Your task to perform on an android device: change alarm snooze length Image 0: 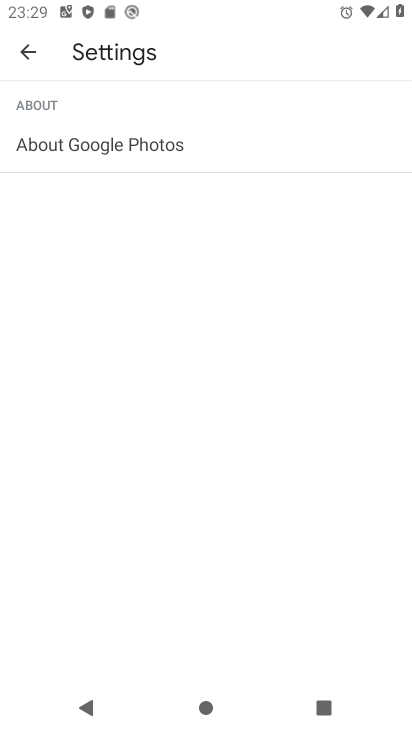
Step 0: drag from (264, 537) to (216, 262)
Your task to perform on an android device: change alarm snooze length Image 1: 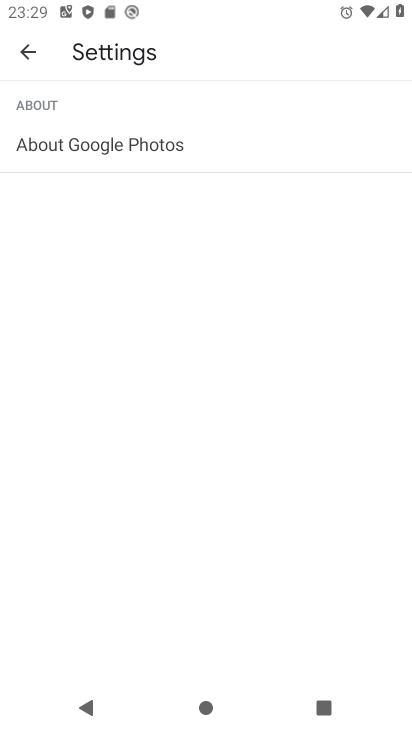
Step 1: press home button
Your task to perform on an android device: change alarm snooze length Image 2: 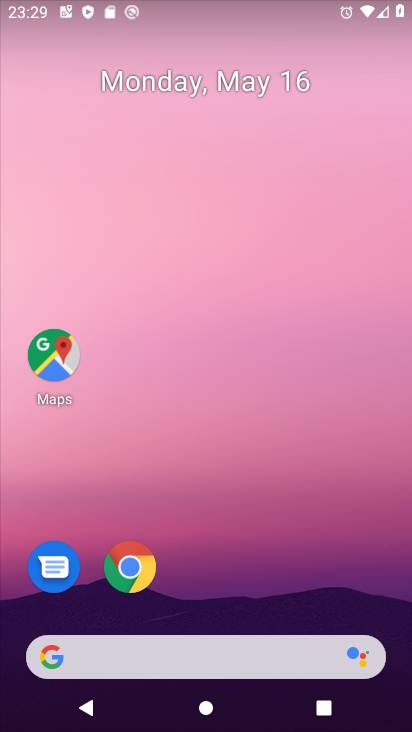
Step 2: drag from (254, 569) to (191, 214)
Your task to perform on an android device: change alarm snooze length Image 3: 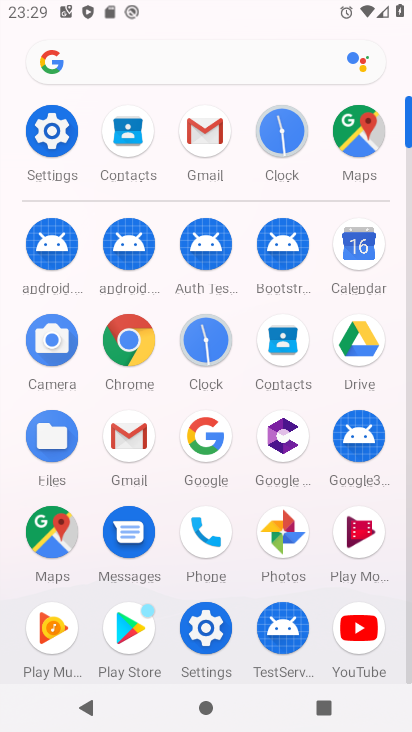
Step 3: click (204, 339)
Your task to perform on an android device: change alarm snooze length Image 4: 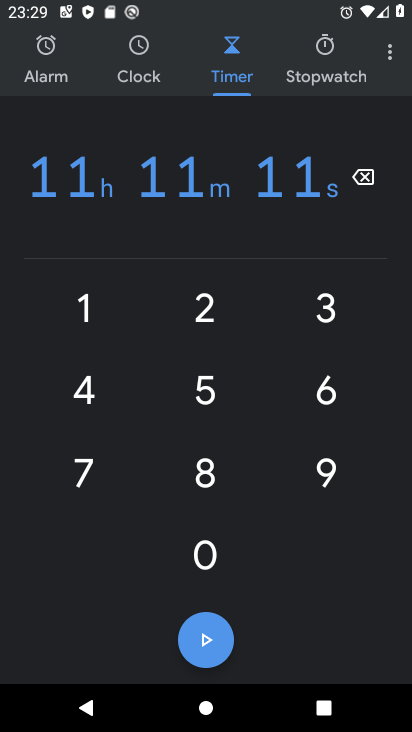
Step 4: click (392, 54)
Your task to perform on an android device: change alarm snooze length Image 5: 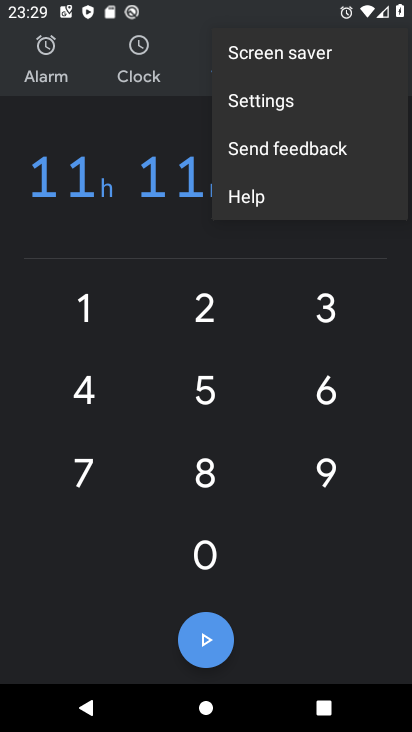
Step 5: click (279, 96)
Your task to perform on an android device: change alarm snooze length Image 6: 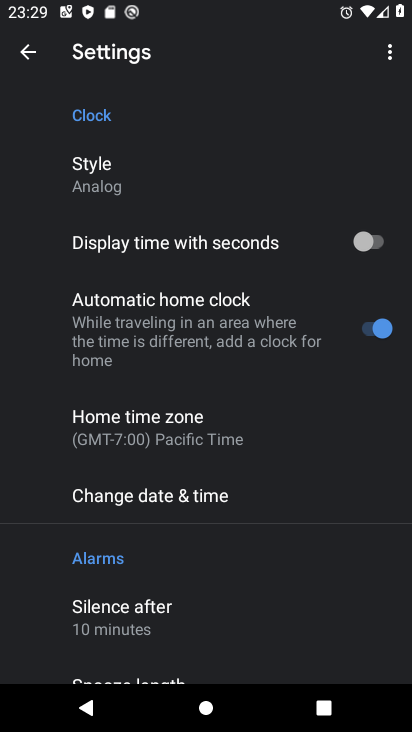
Step 6: drag from (285, 497) to (247, 335)
Your task to perform on an android device: change alarm snooze length Image 7: 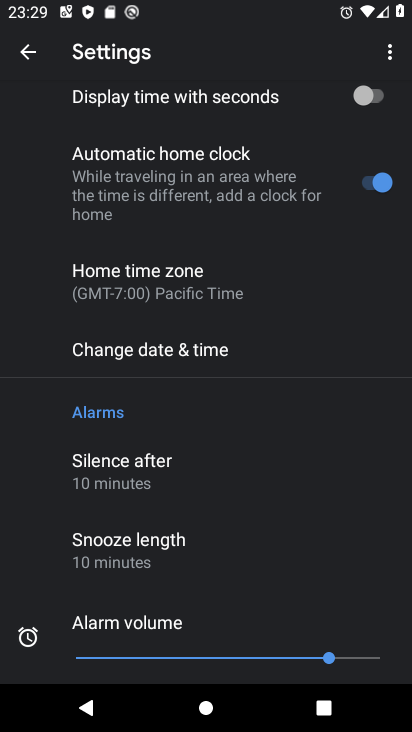
Step 7: drag from (270, 490) to (218, 320)
Your task to perform on an android device: change alarm snooze length Image 8: 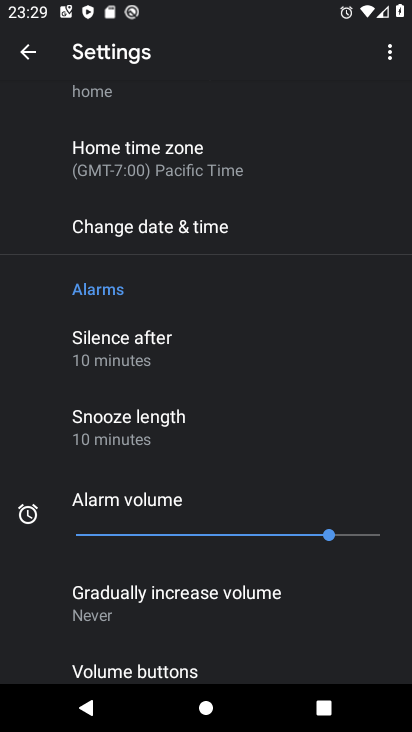
Step 8: click (144, 424)
Your task to perform on an android device: change alarm snooze length Image 9: 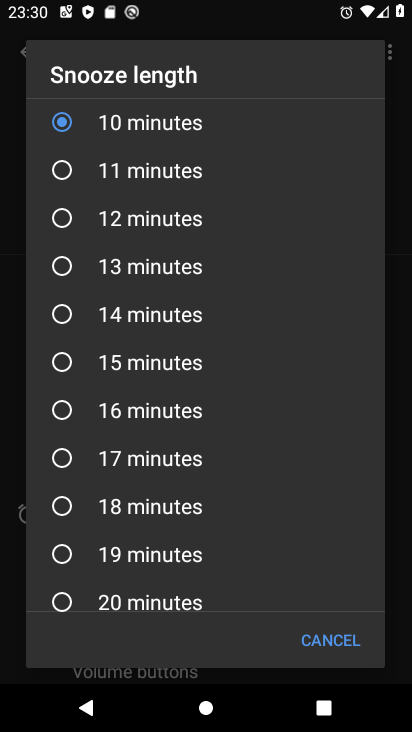
Step 9: click (57, 181)
Your task to perform on an android device: change alarm snooze length Image 10: 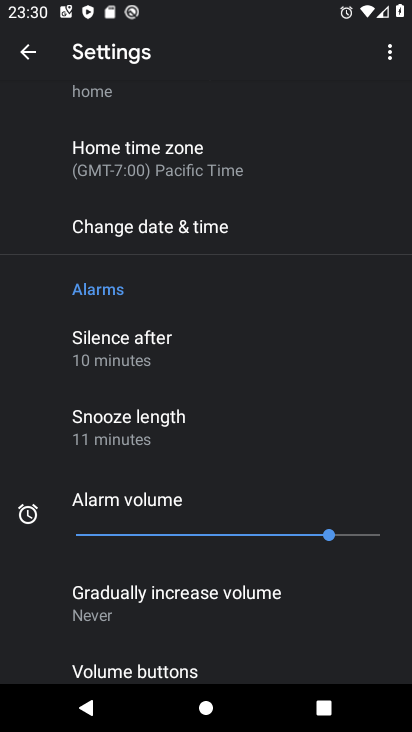
Step 10: task complete